Your task to perform on an android device: turn off airplane mode Image 0: 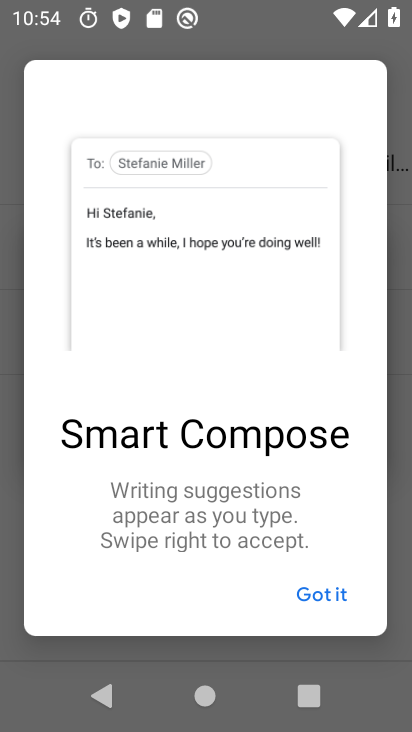
Step 0: press home button
Your task to perform on an android device: turn off airplane mode Image 1: 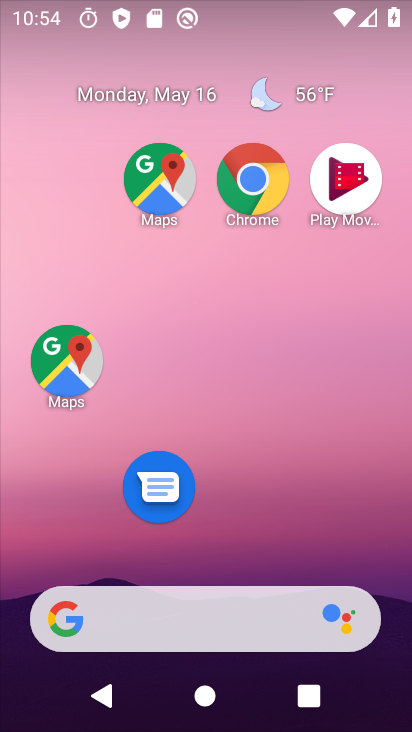
Step 1: drag from (264, 547) to (278, 97)
Your task to perform on an android device: turn off airplane mode Image 2: 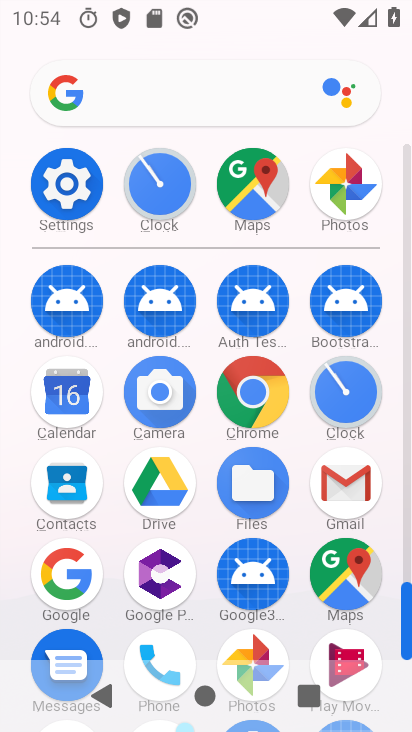
Step 2: click (80, 189)
Your task to perform on an android device: turn off airplane mode Image 3: 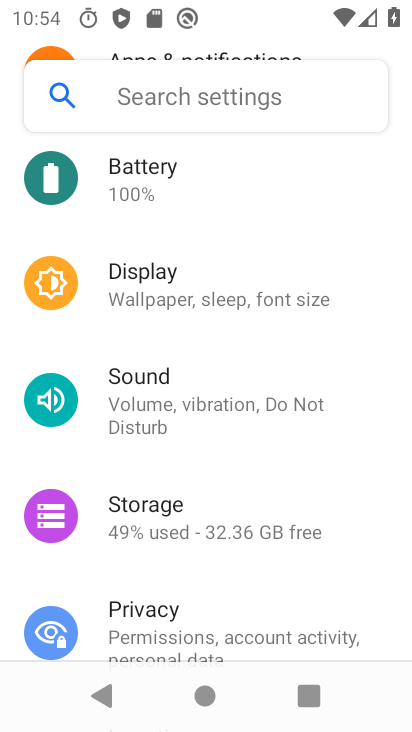
Step 3: click (177, 621)
Your task to perform on an android device: turn off airplane mode Image 4: 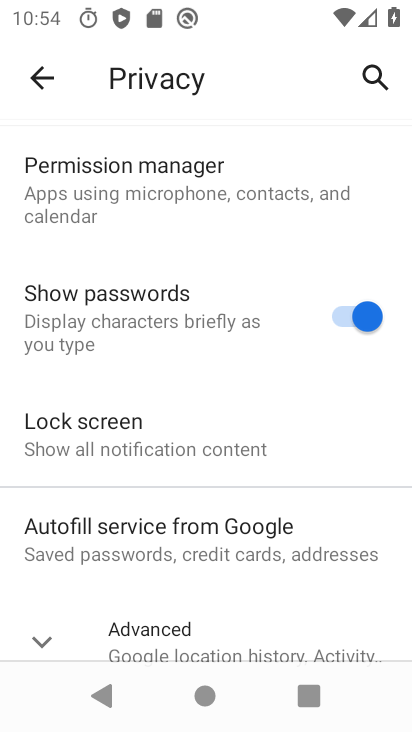
Step 4: click (39, 88)
Your task to perform on an android device: turn off airplane mode Image 5: 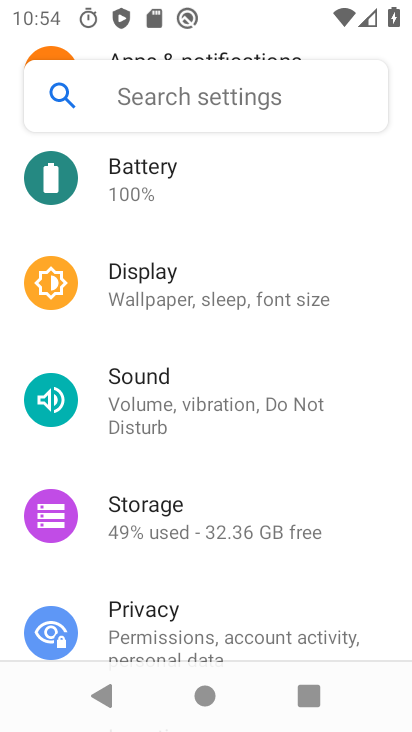
Step 5: drag from (237, 282) to (131, 727)
Your task to perform on an android device: turn off airplane mode Image 6: 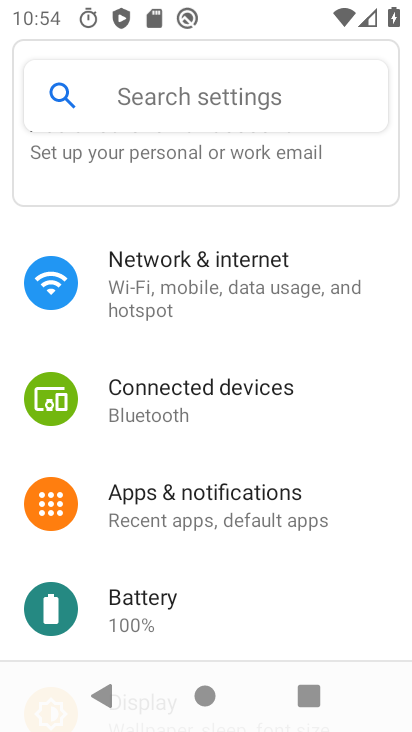
Step 6: drag from (157, 329) to (99, 660)
Your task to perform on an android device: turn off airplane mode Image 7: 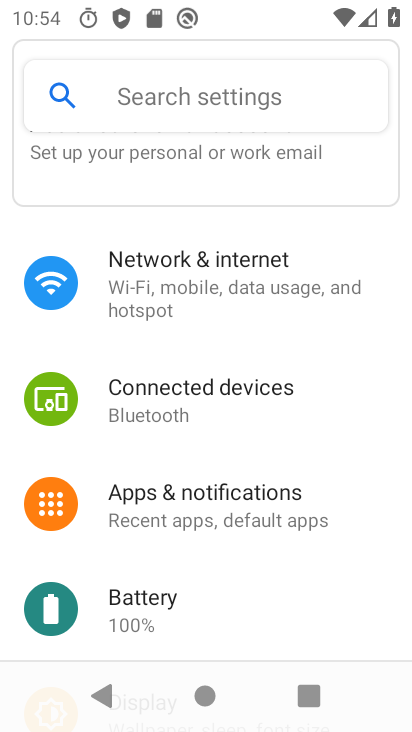
Step 7: click (166, 310)
Your task to perform on an android device: turn off airplane mode Image 8: 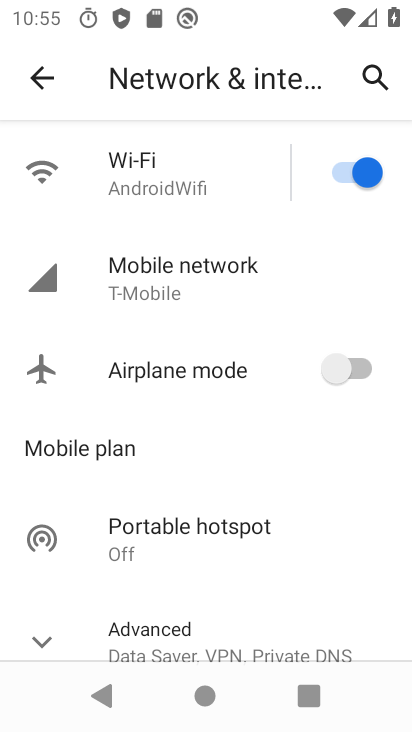
Step 8: task complete